Your task to perform on an android device: uninstall "Walmart Shopping & Grocery" Image 0: 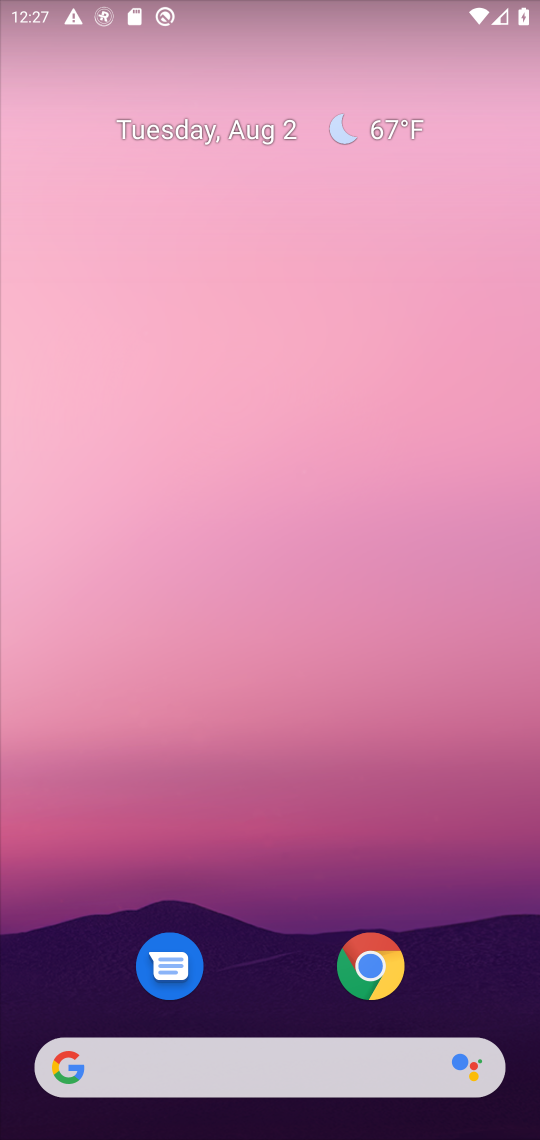
Step 0: drag from (260, 968) to (271, 139)
Your task to perform on an android device: uninstall "Walmart Shopping & Grocery" Image 1: 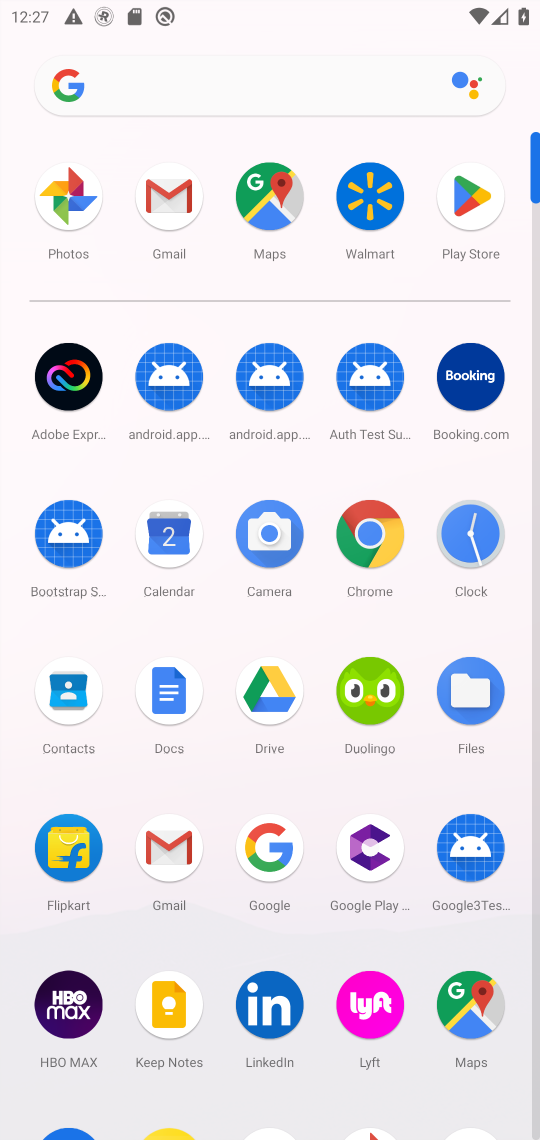
Step 1: click (472, 190)
Your task to perform on an android device: uninstall "Walmart Shopping & Grocery" Image 2: 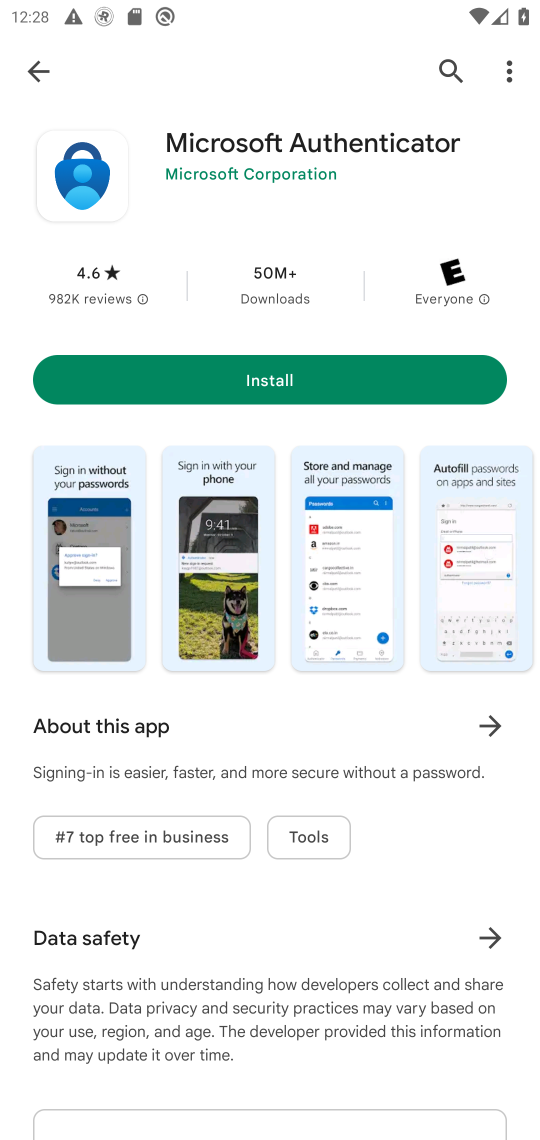
Step 2: click (451, 66)
Your task to perform on an android device: uninstall "Walmart Shopping & Grocery" Image 3: 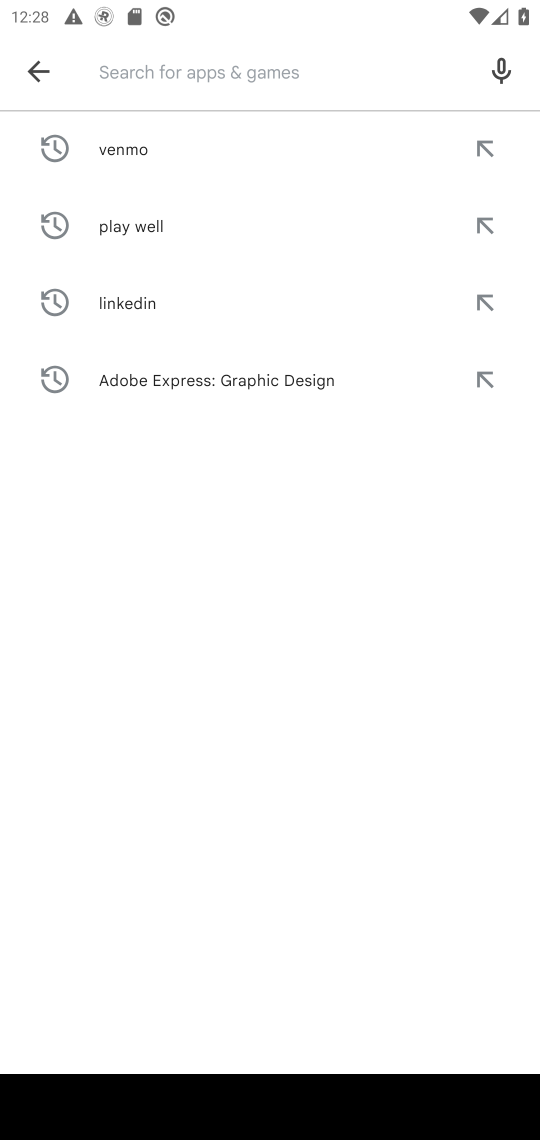
Step 3: click (366, 65)
Your task to perform on an android device: uninstall "Walmart Shopping & Grocery" Image 4: 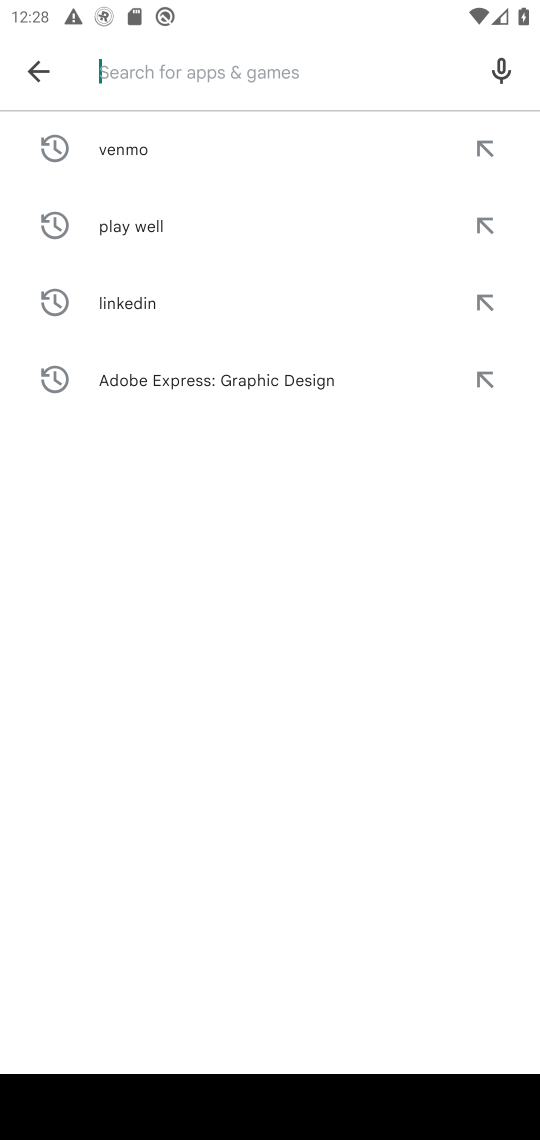
Step 4: type "walmart shoping grocery"
Your task to perform on an android device: uninstall "Walmart Shopping & Grocery" Image 5: 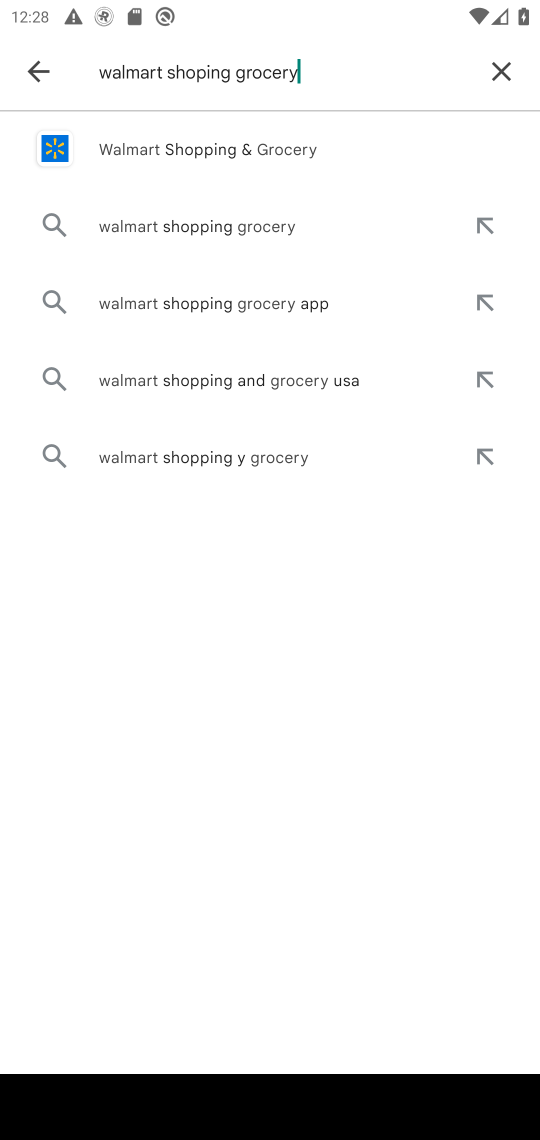
Step 5: click (292, 140)
Your task to perform on an android device: uninstall "Walmart Shopping & Grocery" Image 6: 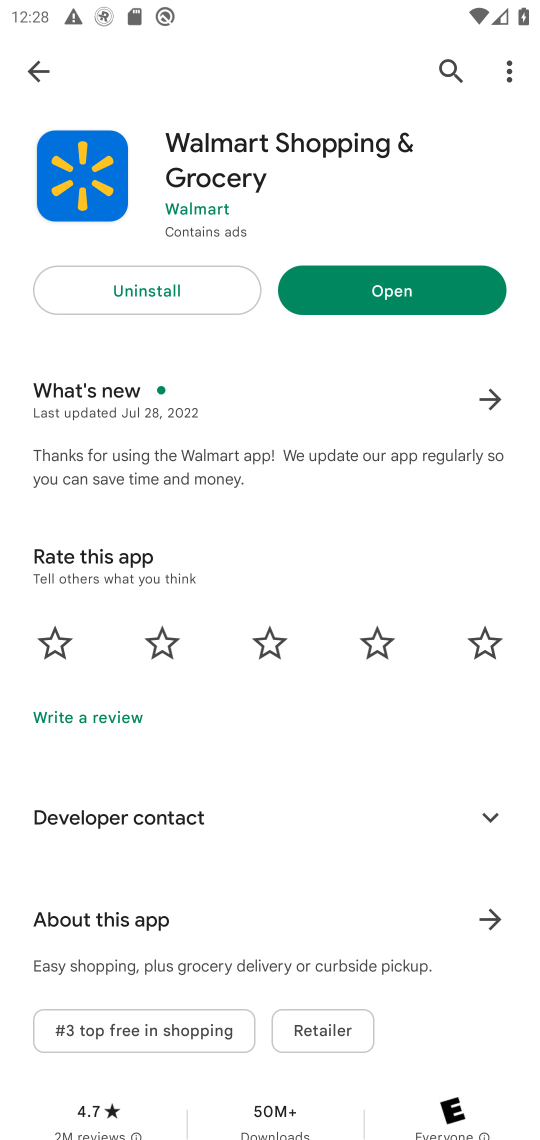
Step 6: click (453, 67)
Your task to perform on an android device: uninstall "Walmart Shopping & Grocery" Image 7: 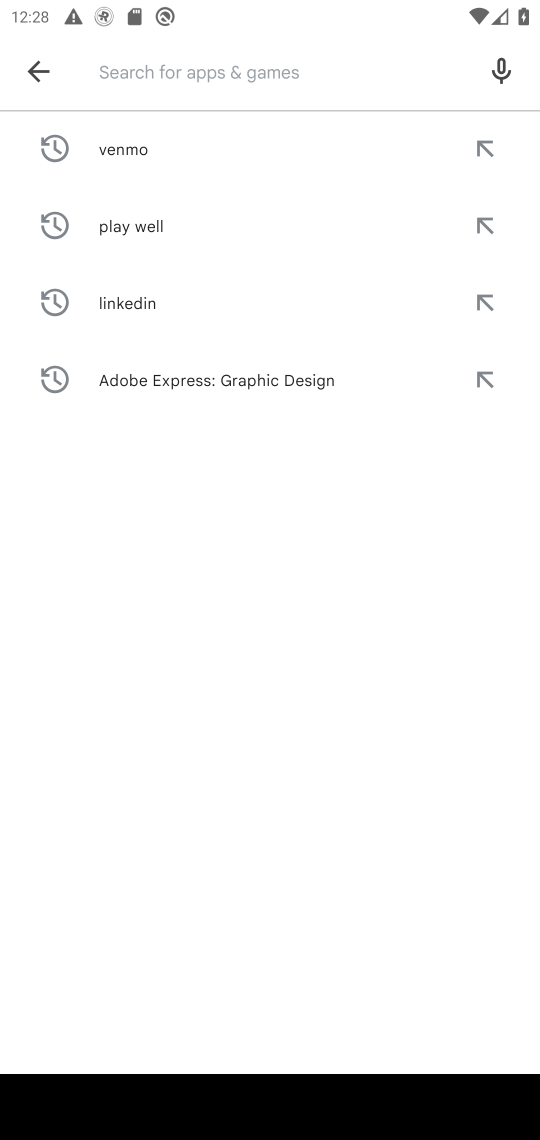
Step 7: click (230, 72)
Your task to perform on an android device: uninstall "Walmart Shopping & Grocery" Image 8: 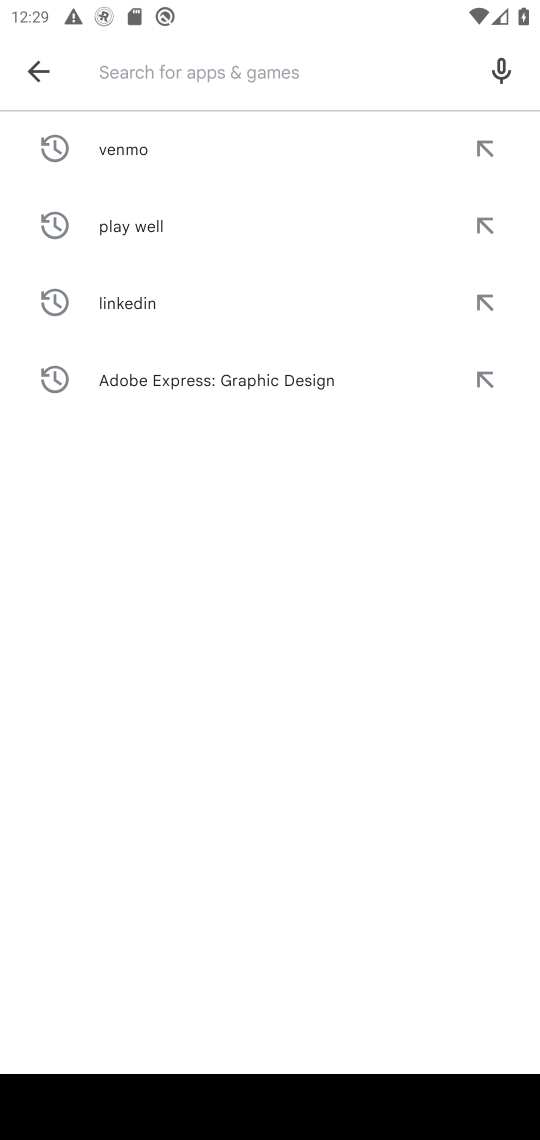
Step 8: type "Walmart Shopping & Grocery"
Your task to perform on an android device: uninstall "Walmart Shopping & Grocery" Image 9: 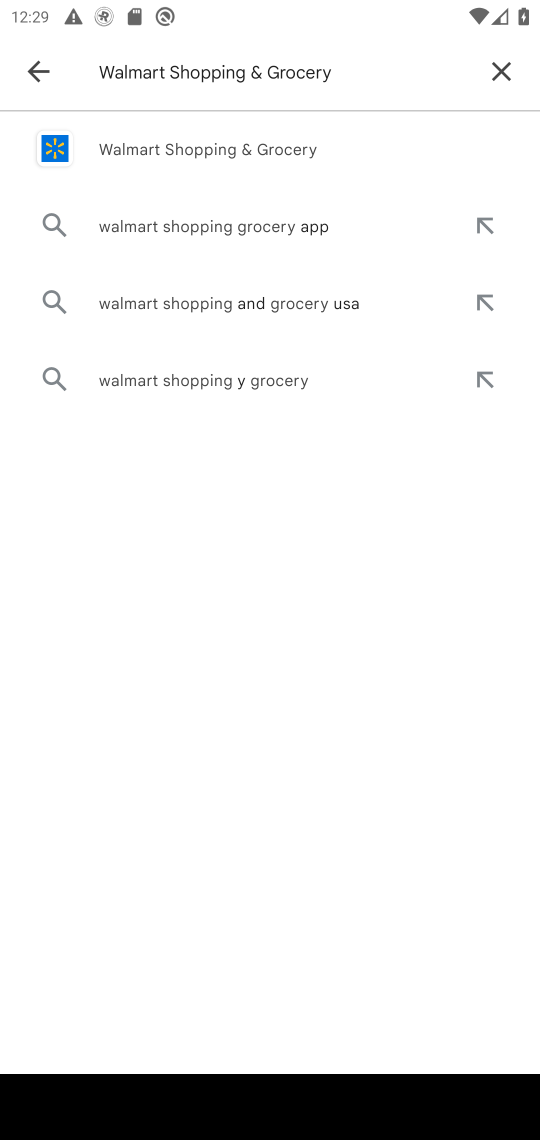
Step 9: click (246, 146)
Your task to perform on an android device: uninstall "Walmart Shopping & Grocery" Image 10: 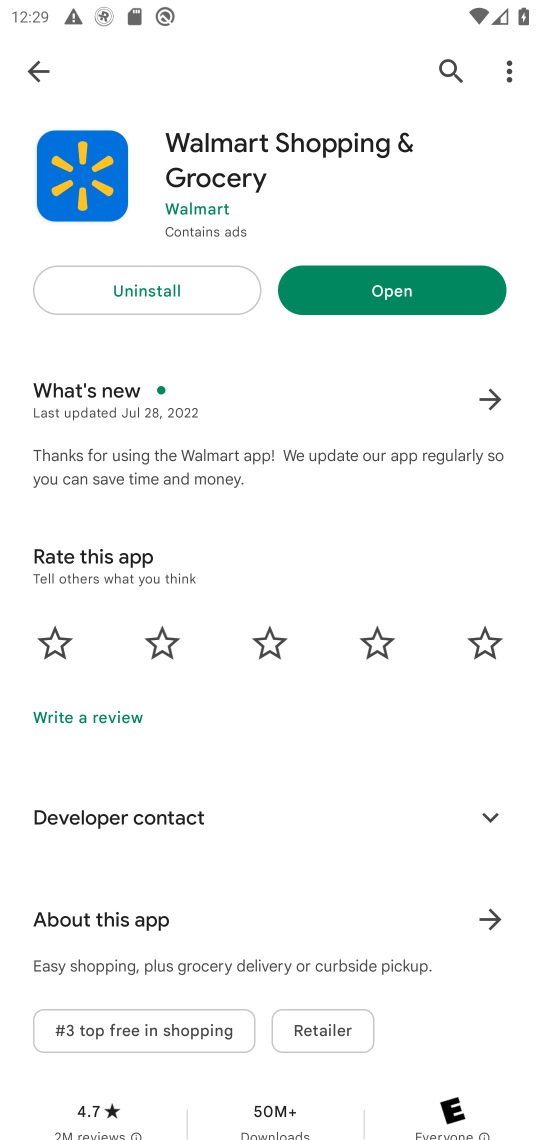
Step 10: click (216, 290)
Your task to perform on an android device: uninstall "Walmart Shopping & Grocery" Image 11: 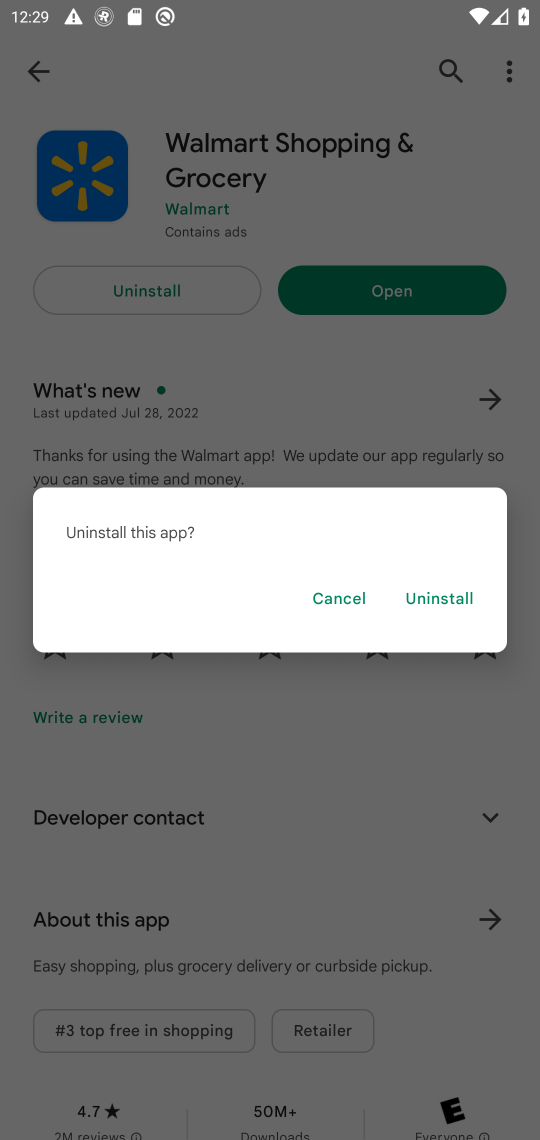
Step 11: click (439, 599)
Your task to perform on an android device: uninstall "Walmart Shopping & Grocery" Image 12: 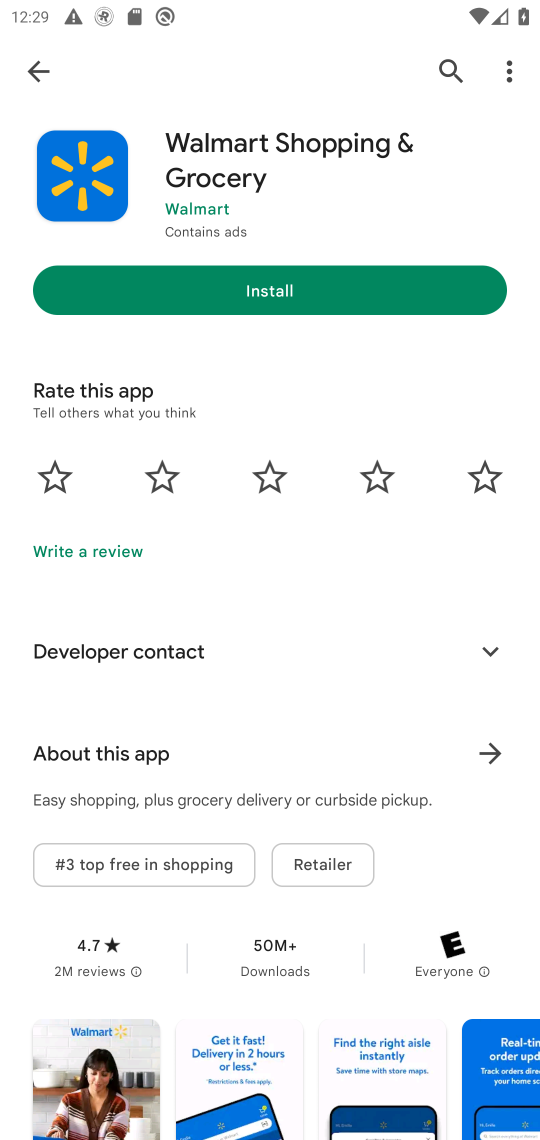
Step 12: task complete